Your task to perform on an android device: Open Google Chrome and click the shortcut for Amazon.com Image 0: 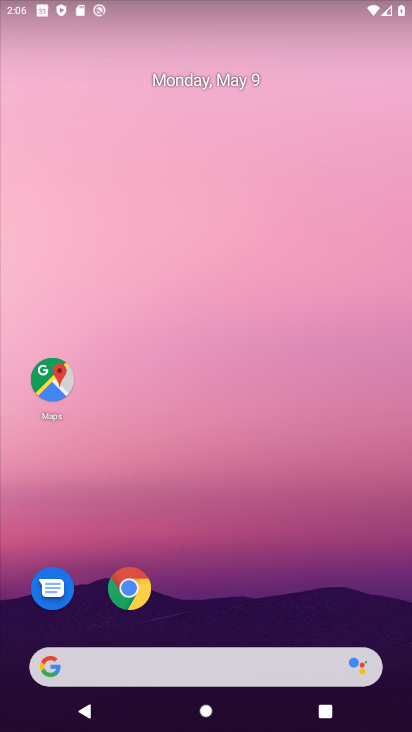
Step 0: drag from (353, 583) to (293, 72)
Your task to perform on an android device: Open Google Chrome and click the shortcut for Amazon.com Image 1: 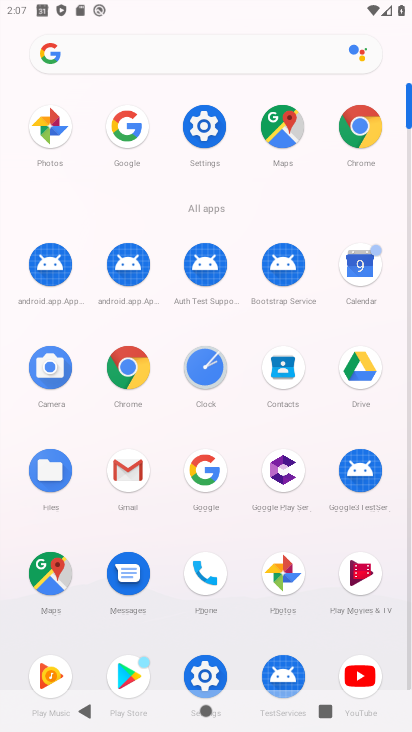
Step 1: click (127, 359)
Your task to perform on an android device: Open Google Chrome and click the shortcut for Amazon.com Image 2: 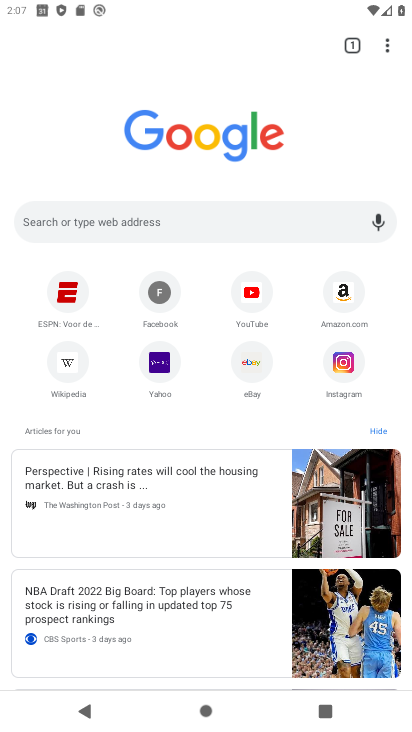
Step 2: click (348, 295)
Your task to perform on an android device: Open Google Chrome and click the shortcut for Amazon.com Image 3: 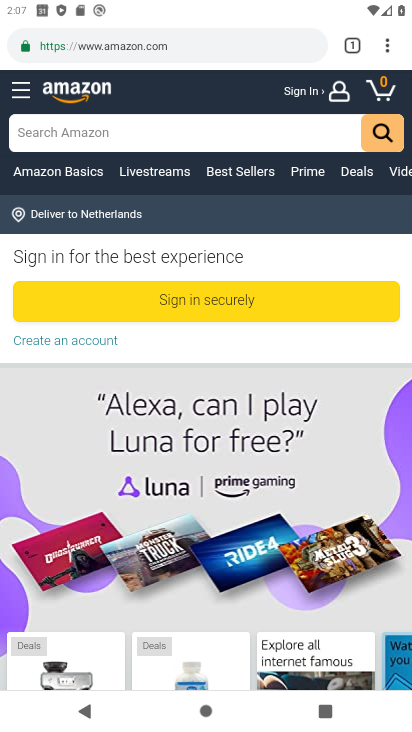
Step 3: task complete